Your task to perform on an android device: Open calendar and show me the second week of next month Image 0: 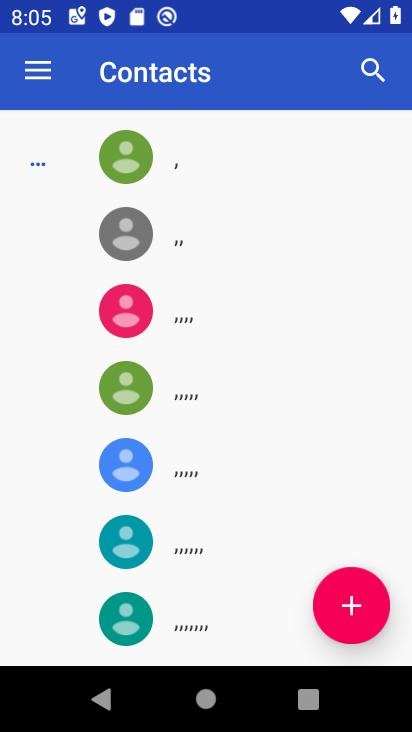
Step 0: press home button
Your task to perform on an android device: Open calendar and show me the second week of next month Image 1: 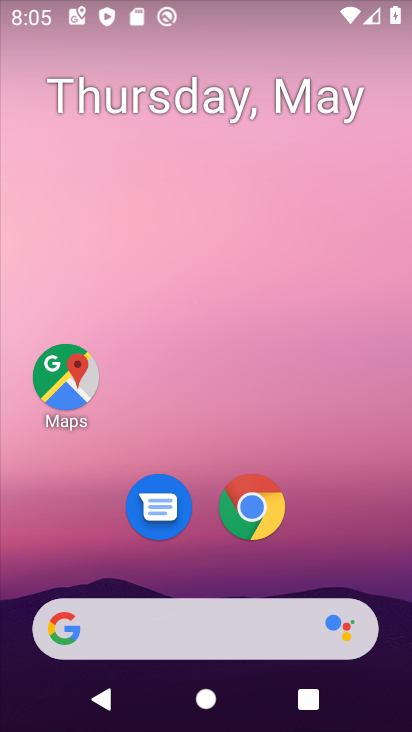
Step 1: drag from (221, 673) to (217, 152)
Your task to perform on an android device: Open calendar and show me the second week of next month Image 2: 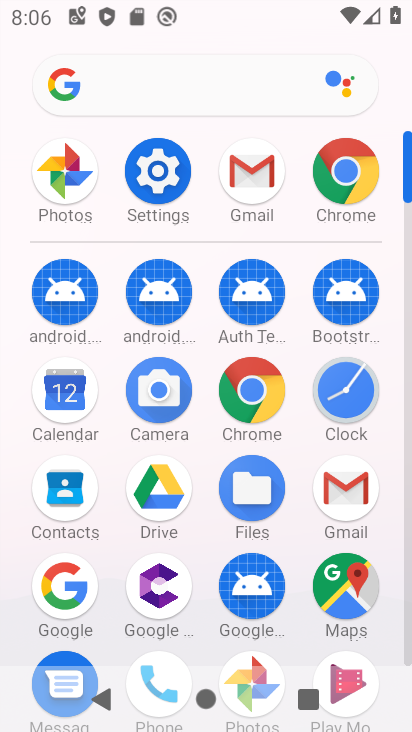
Step 2: click (77, 399)
Your task to perform on an android device: Open calendar and show me the second week of next month Image 3: 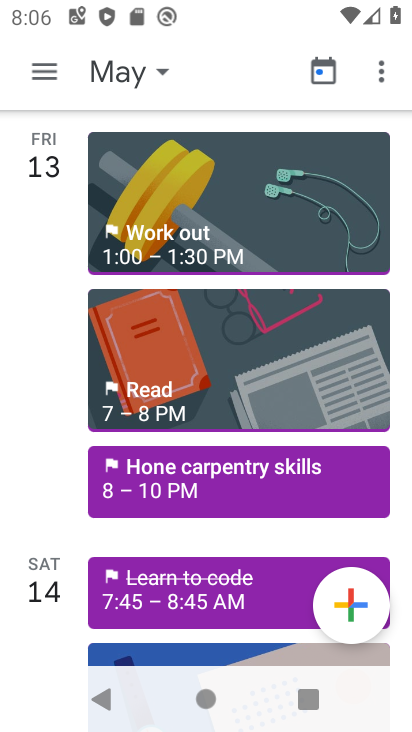
Step 3: click (54, 75)
Your task to perform on an android device: Open calendar and show me the second week of next month Image 4: 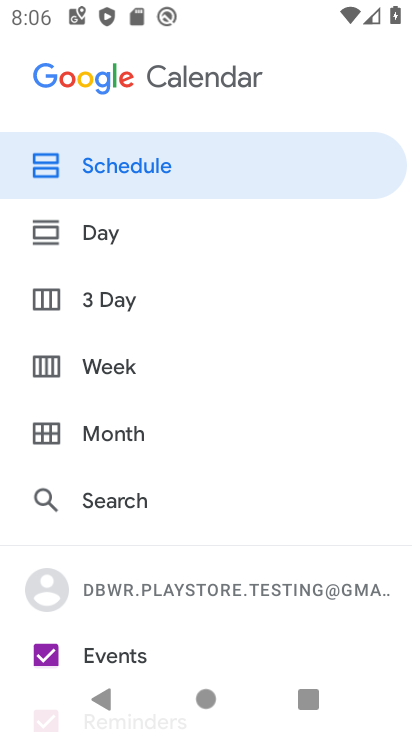
Step 4: click (133, 432)
Your task to perform on an android device: Open calendar and show me the second week of next month Image 5: 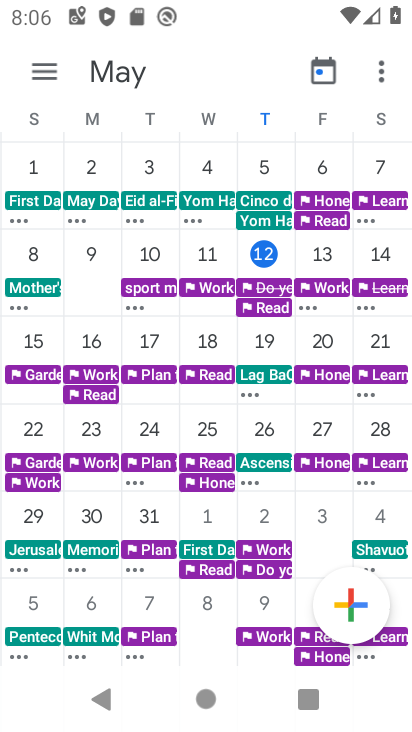
Step 5: drag from (305, 404) to (15, 395)
Your task to perform on an android device: Open calendar and show me the second week of next month Image 6: 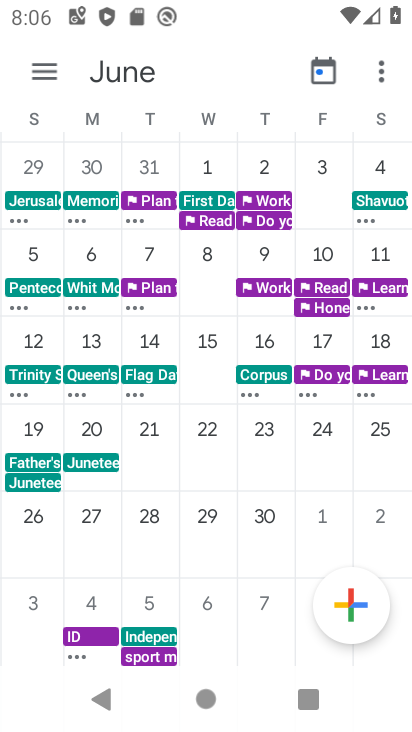
Step 6: click (87, 269)
Your task to perform on an android device: Open calendar and show me the second week of next month Image 7: 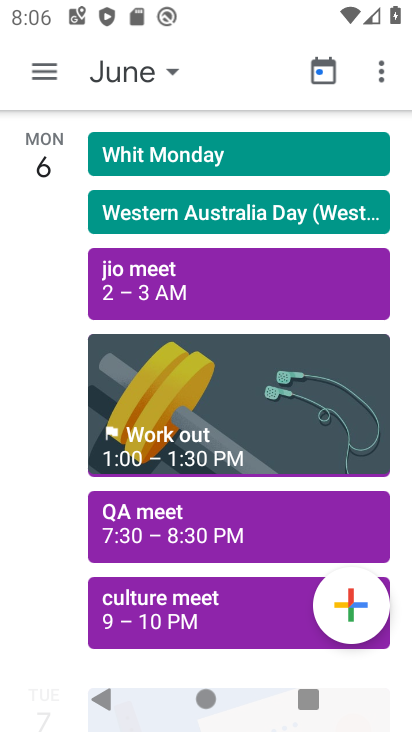
Step 7: task complete